Your task to perform on an android device: Open ESPN.com Image 0: 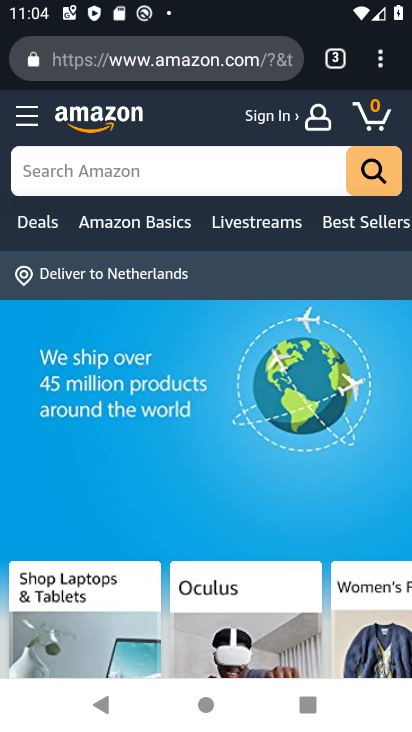
Step 0: press home button
Your task to perform on an android device: Open ESPN.com Image 1: 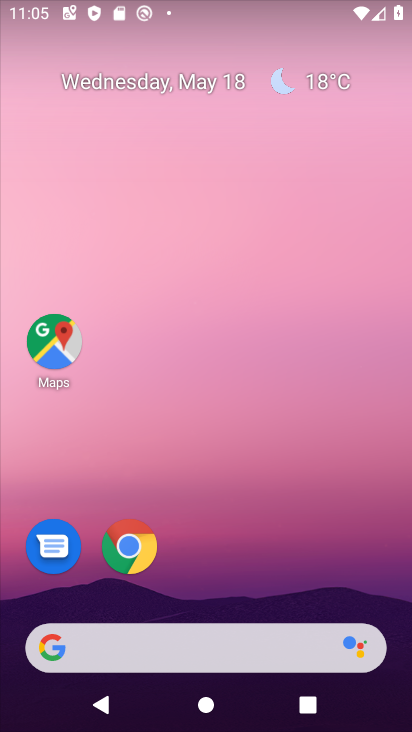
Step 1: click (134, 553)
Your task to perform on an android device: Open ESPN.com Image 2: 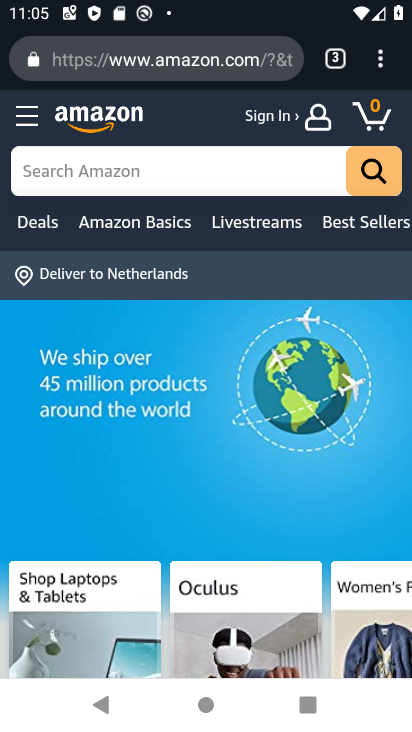
Step 2: click (382, 68)
Your task to perform on an android device: Open ESPN.com Image 3: 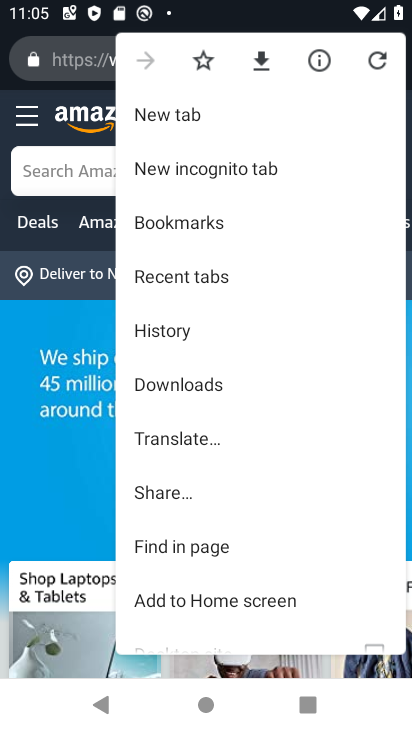
Step 3: click (178, 115)
Your task to perform on an android device: Open ESPN.com Image 4: 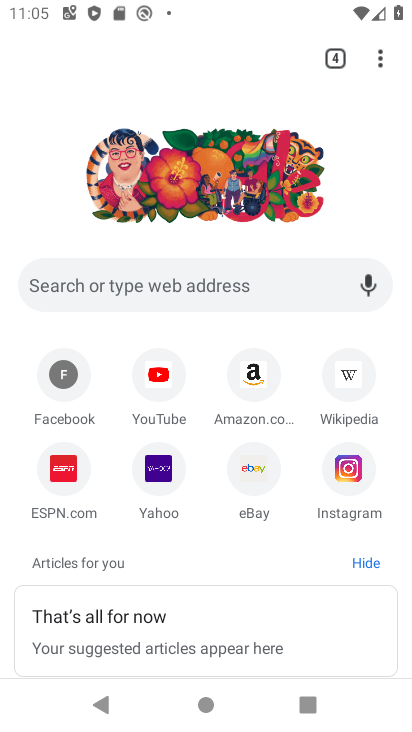
Step 4: click (65, 470)
Your task to perform on an android device: Open ESPN.com Image 5: 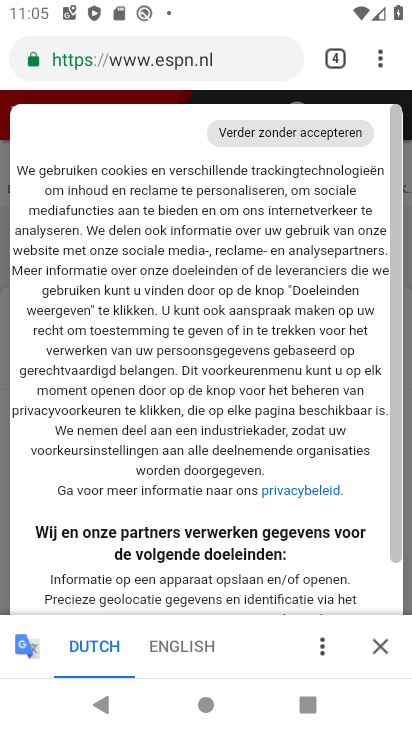
Step 5: click (268, 133)
Your task to perform on an android device: Open ESPN.com Image 6: 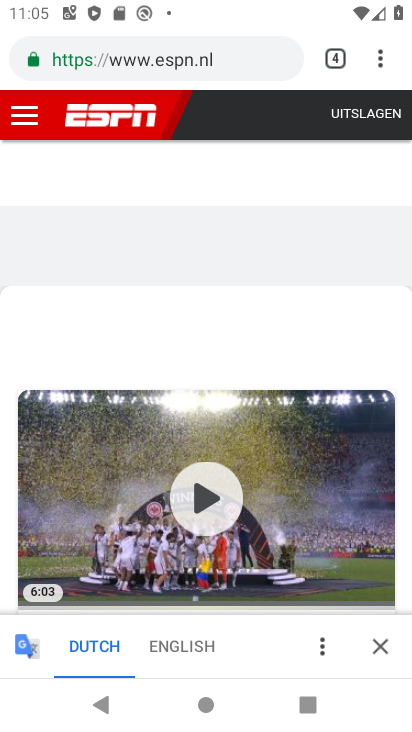
Step 6: task complete